Your task to perform on an android device: When is my next appointment? Image 0: 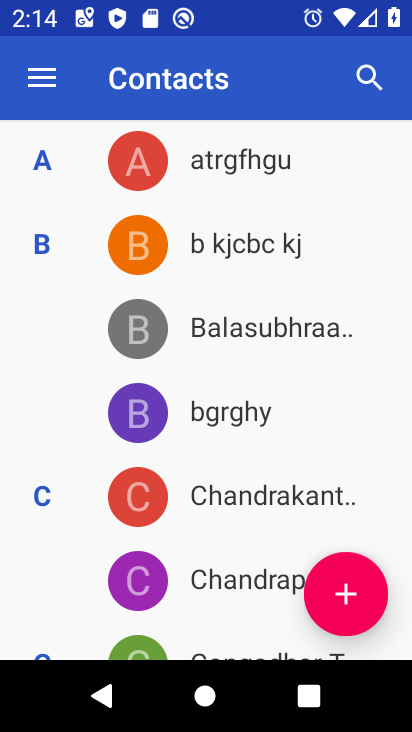
Step 0: press back button
Your task to perform on an android device: When is my next appointment? Image 1: 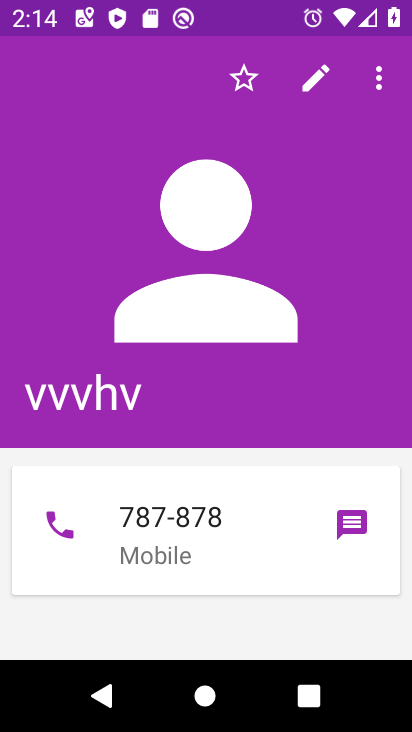
Step 1: press back button
Your task to perform on an android device: When is my next appointment? Image 2: 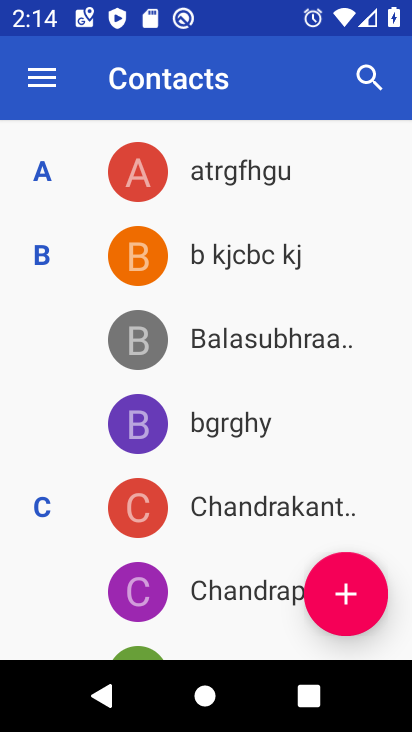
Step 2: press back button
Your task to perform on an android device: When is my next appointment? Image 3: 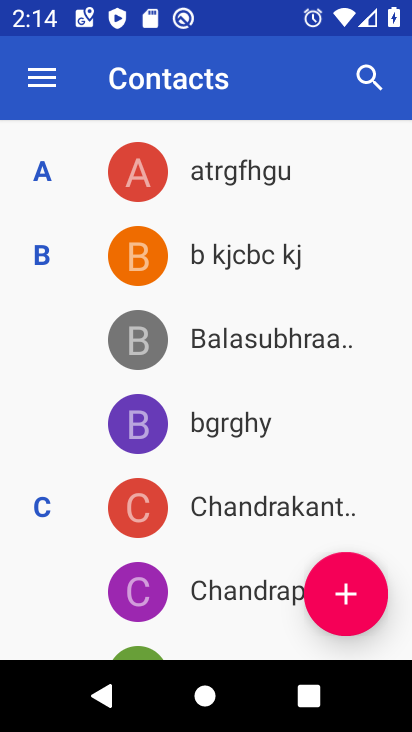
Step 3: press back button
Your task to perform on an android device: When is my next appointment? Image 4: 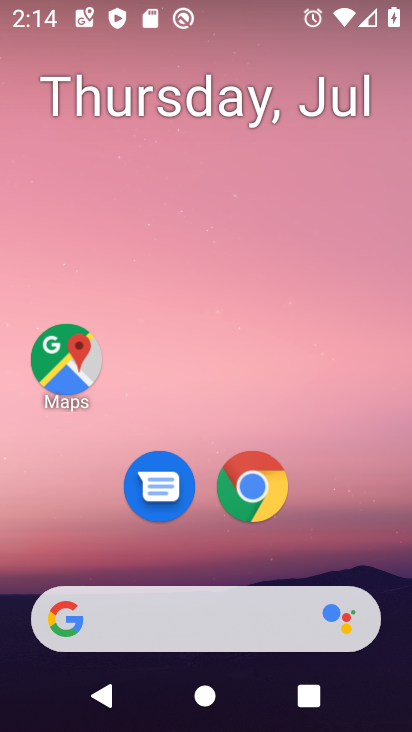
Step 4: drag from (201, 498) to (265, 14)
Your task to perform on an android device: When is my next appointment? Image 5: 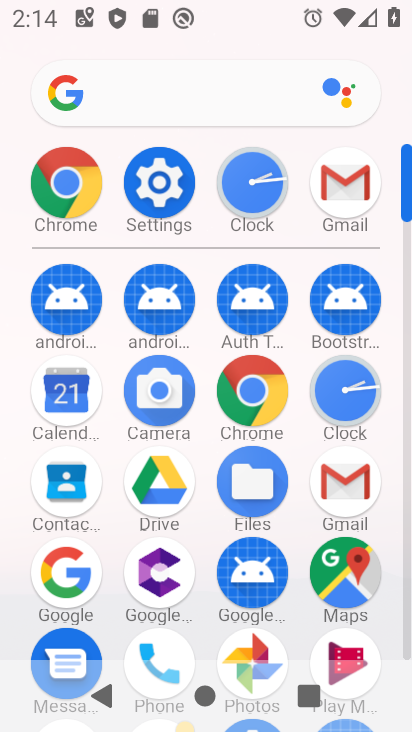
Step 5: click (63, 400)
Your task to perform on an android device: When is my next appointment? Image 6: 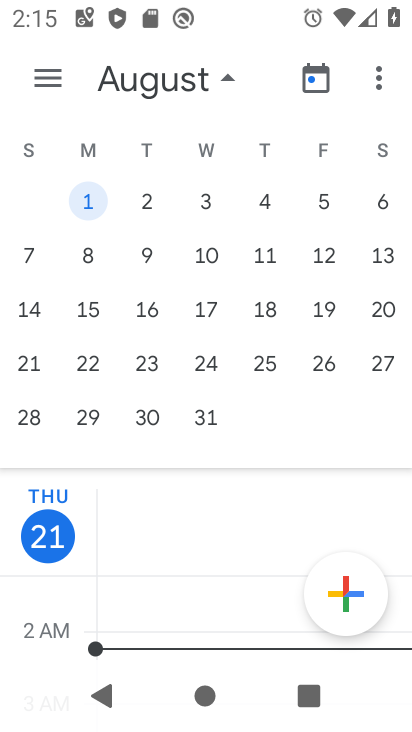
Step 6: drag from (43, 334) to (395, 282)
Your task to perform on an android device: When is my next appointment? Image 7: 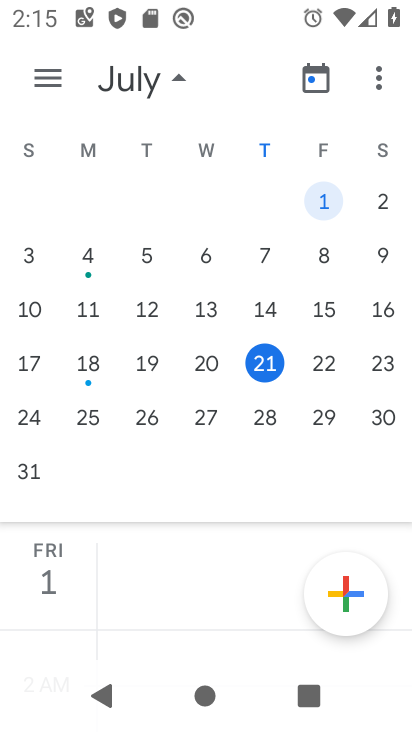
Step 7: click (270, 347)
Your task to perform on an android device: When is my next appointment? Image 8: 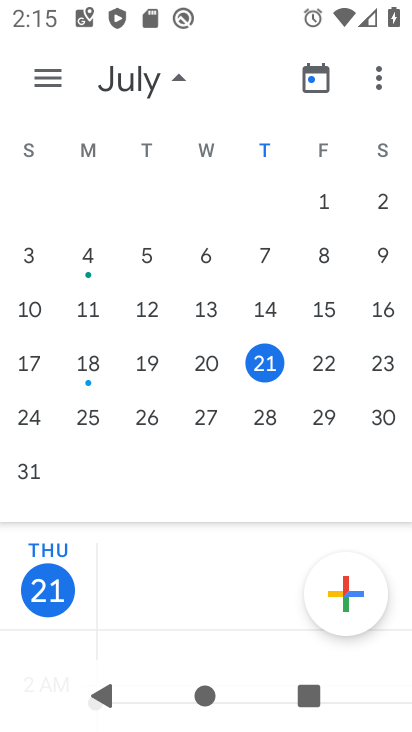
Step 8: drag from (146, 579) to (239, 110)
Your task to perform on an android device: When is my next appointment? Image 9: 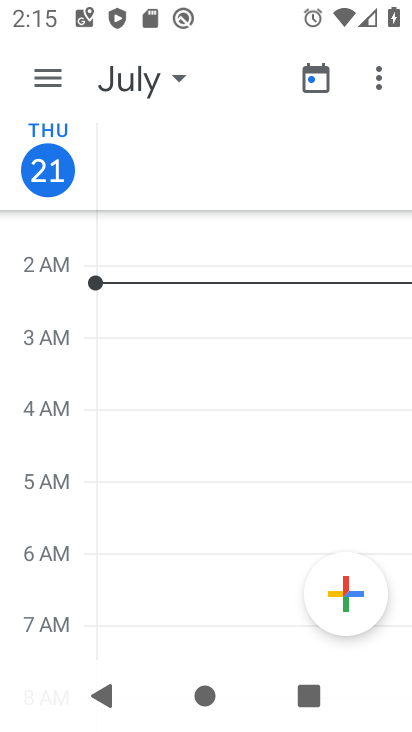
Step 9: click (36, 81)
Your task to perform on an android device: When is my next appointment? Image 10: 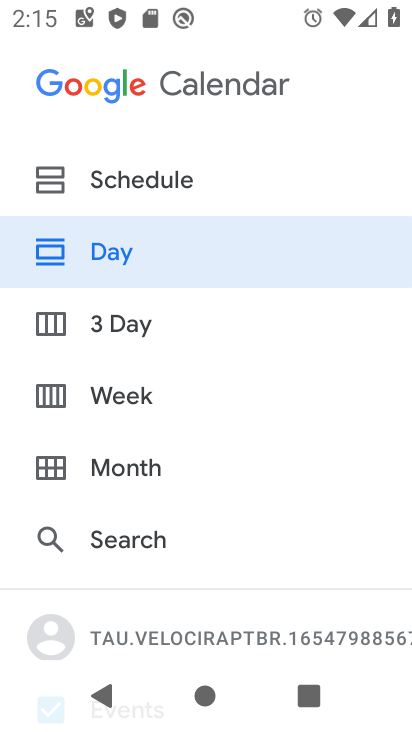
Step 10: click (134, 168)
Your task to perform on an android device: When is my next appointment? Image 11: 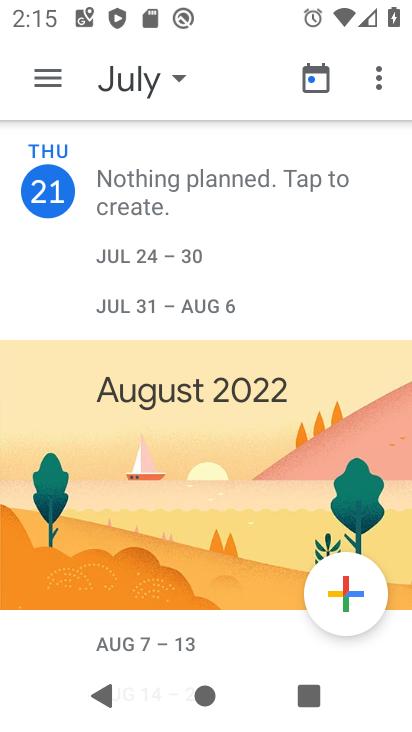
Step 11: task complete